Your task to perform on an android device: open app "LiveIn - Share Your Moment" (install if not already installed), go to login, and select forgot password Image 0: 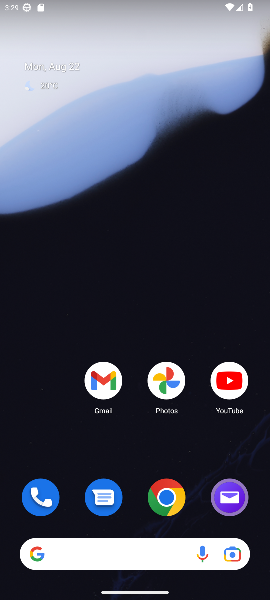
Step 0: drag from (65, 447) to (78, 108)
Your task to perform on an android device: open app "LiveIn - Share Your Moment" (install if not already installed), go to login, and select forgot password Image 1: 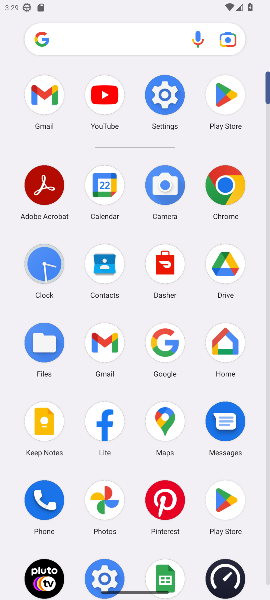
Step 1: click (230, 95)
Your task to perform on an android device: open app "LiveIn - Share Your Moment" (install if not already installed), go to login, and select forgot password Image 2: 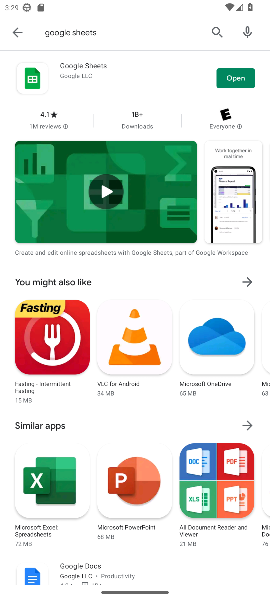
Step 2: press back button
Your task to perform on an android device: open app "LiveIn - Share Your Moment" (install if not already installed), go to login, and select forgot password Image 3: 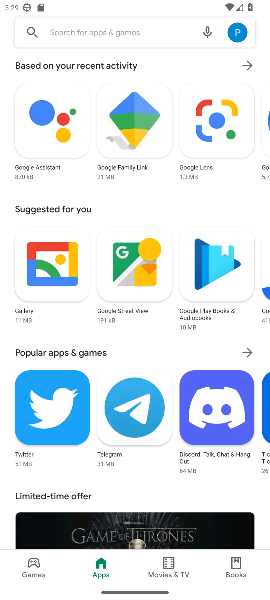
Step 3: type "LiveIn - Share Your Moment"
Your task to perform on an android device: open app "LiveIn - Share Your Moment" (install if not already installed), go to login, and select forgot password Image 4: 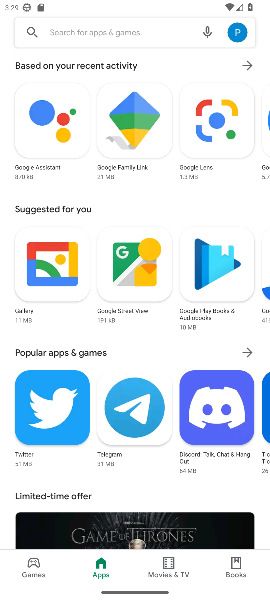
Step 4: press enter
Your task to perform on an android device: open app "LiveIn - Share Your Moment" (install if not already installed), go to login, and select forgot password Image 5: 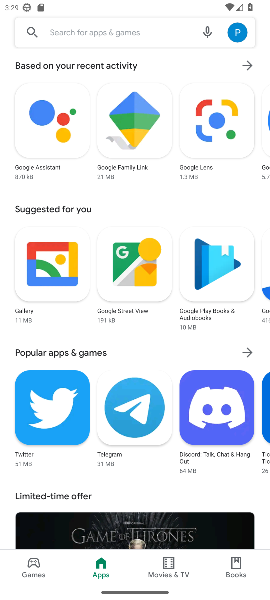
Step 5: click (86, 29)
Your task to perform on an android device: open app "LiveIn - Share Your Moment" (install if not already installed), go to login, and select forgot password Image 6: 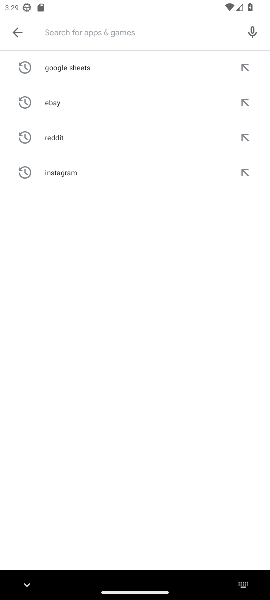
Step 6: type "LiveIn - Share Your Moment"
Your task to perform on an android device: open app "LiveIn - Share Your Moment" (install if not already installed), go to login, and select forgot password Image 7: 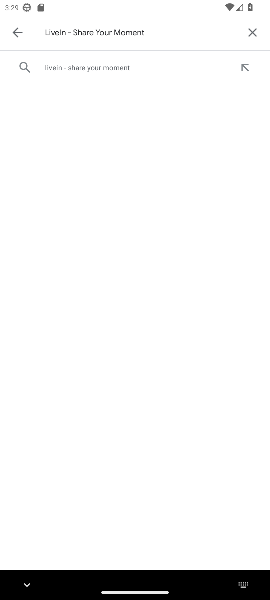
Step 7: click (100, 63)
Your task to perform on an android device: open app "LiveIn - Share Your Moment" (install if not already installed), go to login, and select forgot password Image 8: 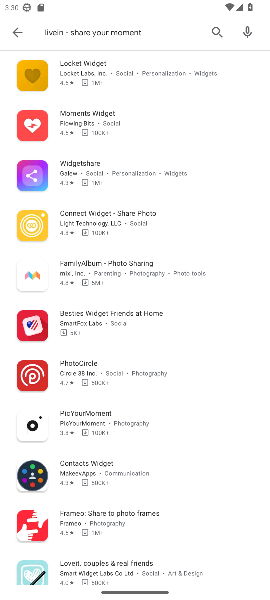
Step 8: task complete